Your task to perform on an android device: Is it going to rain tomorrow? Image 0: 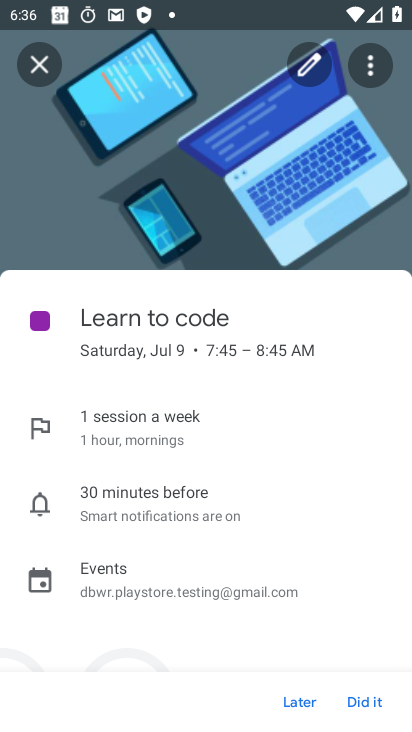
Step 0: press home button
Your task to perform on an android device: Is it going to rain tomorrow? Image 1: 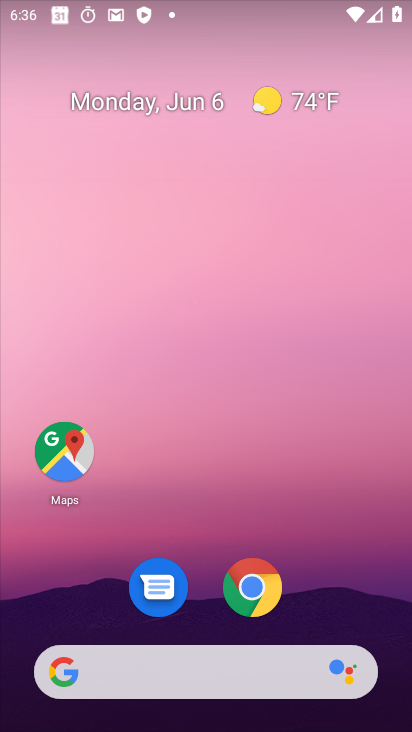
Step 1: drag from (387, 638) to (279, 27)
Your task to perform on an android device: Is it going to rain tomorrow? Image 2: 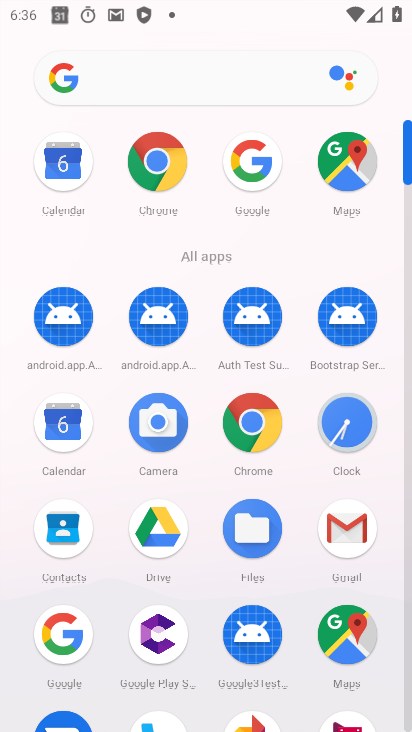
Step 2: click (79, 627)
Your task to perform on an android device: Is it going to rain tomorrow? Image 3: 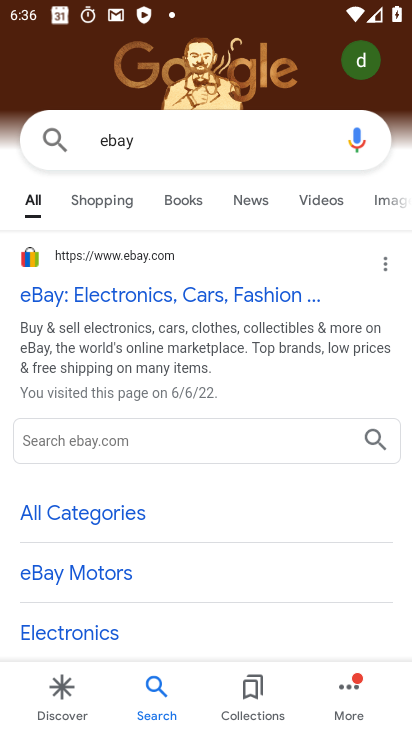
Step 3: press back button
Your task to perform on an android device: Is it going to rain tomorrow? Image 4: 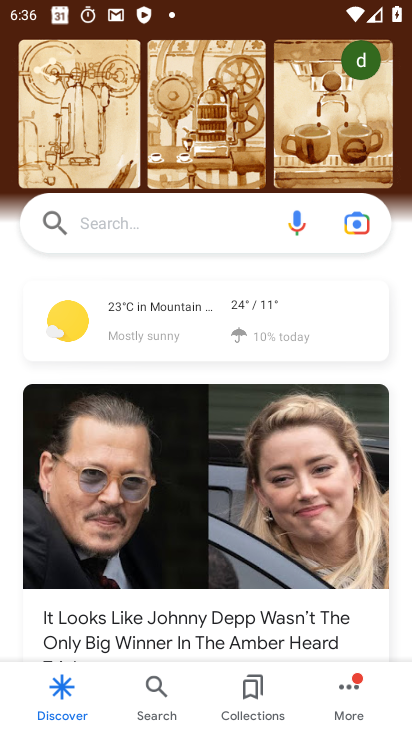
Step 4: click (205, 217)
Your task to perform on an android device: Is it going to rain tomorrow? Image 5: 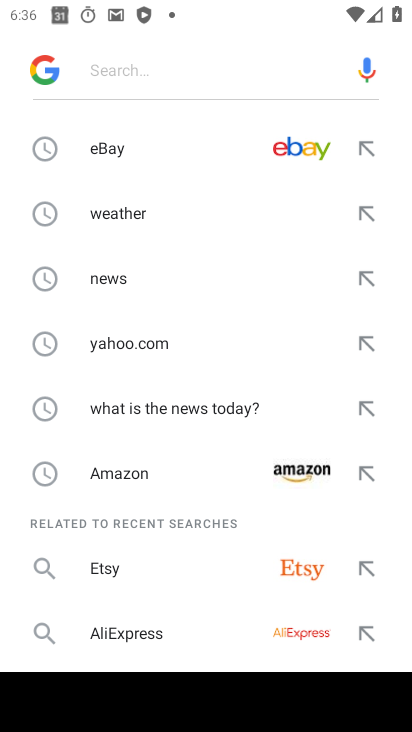
Step 5: drag from (159, 565) to (185, 134)
Your task to perform on an android device: Is it going to rain tomorrow? Image 6: 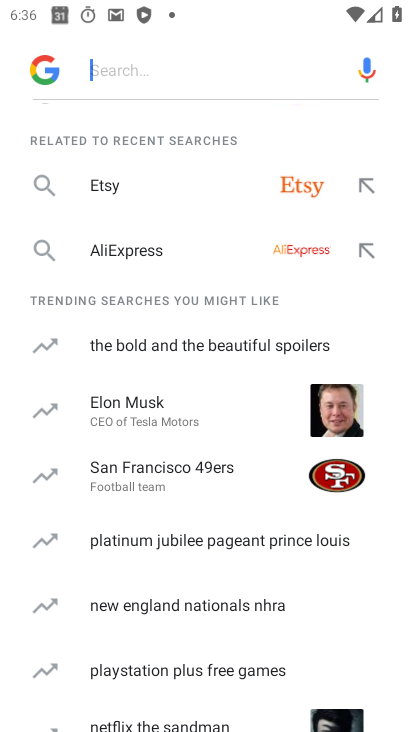
Step 6: drag from (185, 133) to (170, 693)
Your task to perform on an android device: Is it going to rain tomorrow? Image 7: 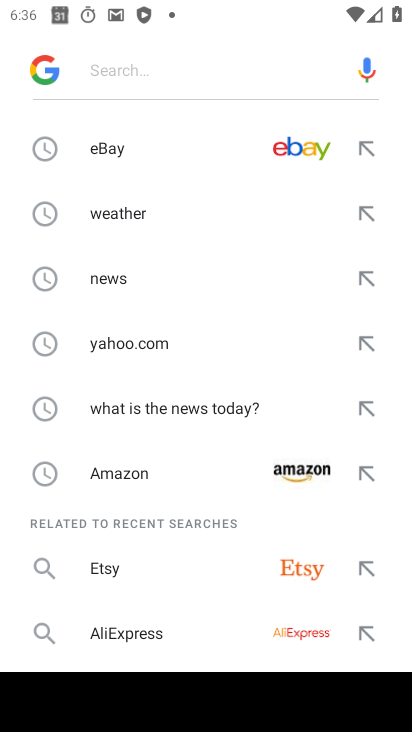
Step 7: drag from (153, 185) to (143, 504)
Your task to perform on an android device: Is it going to rain tomorrow? Image 8: 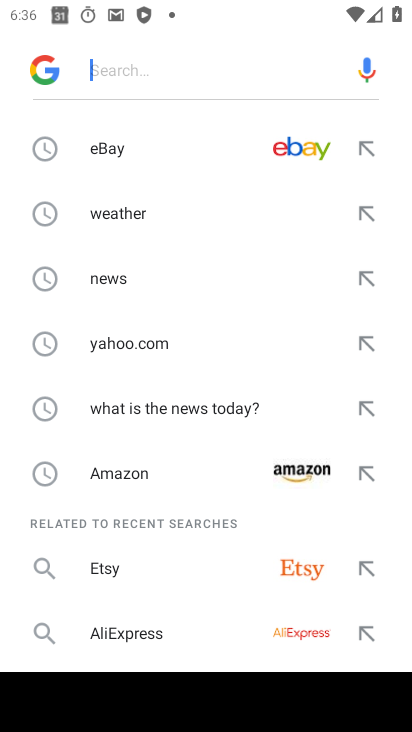
Step 8: click (143, 68)
Your task to perform on an android device: Is it going to rain tomorrow? Image 9: 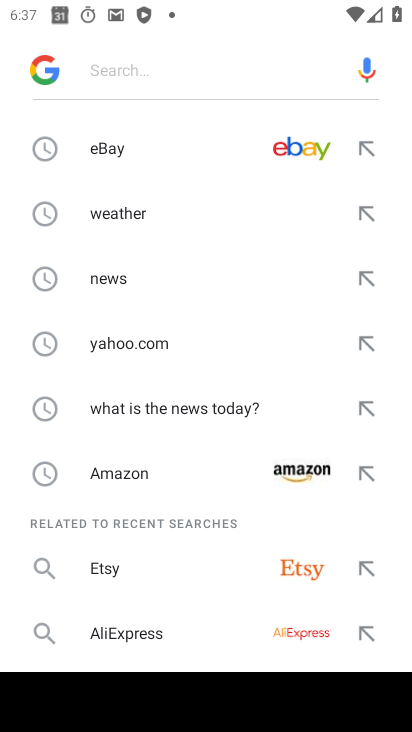
Step 9: type "is it going to rain tomorrow?"
Your task to perform on an android device: Is it going to rain tomorrow? Image 10: 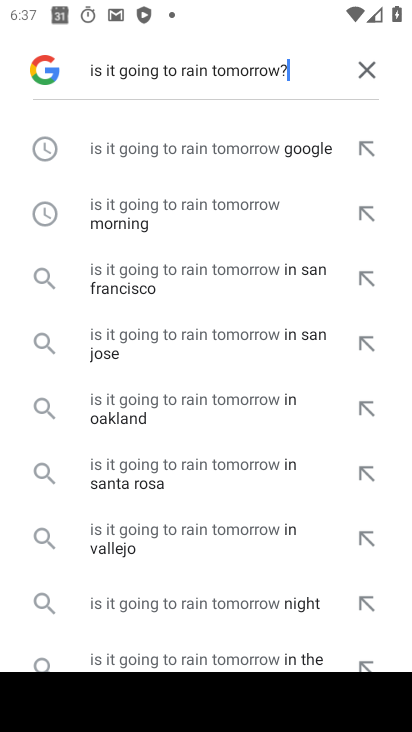
Step 10: click (172, 163)
Your task to perform on an android device: Is it going to rain tomorrow? Image 11: 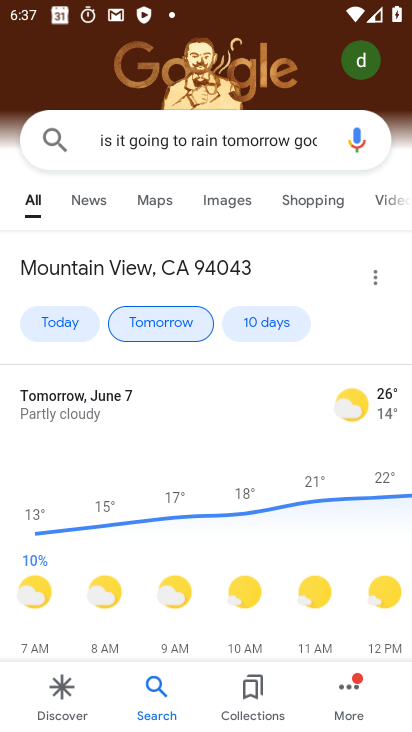
Step 11: task complete